Your task to perform on an android device: Search for "logitech g pro" on amazon.com, select the first entry, and add it to the cart. Image 0: 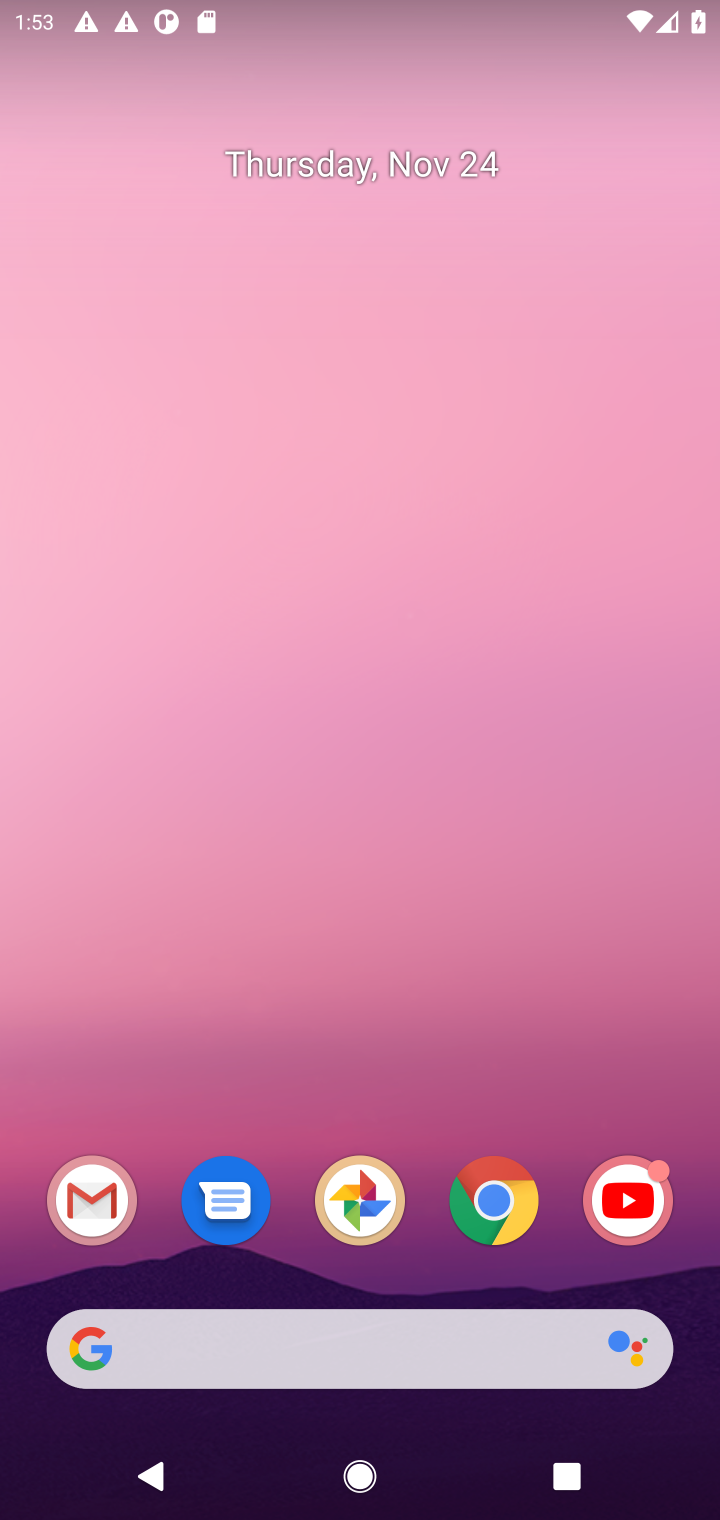
Step 0: click (507, 1330)
Your task to perform on an android device: Search for "logitech g pro" on amazon.com, select the first entry, and add it to the cart. Image 1: 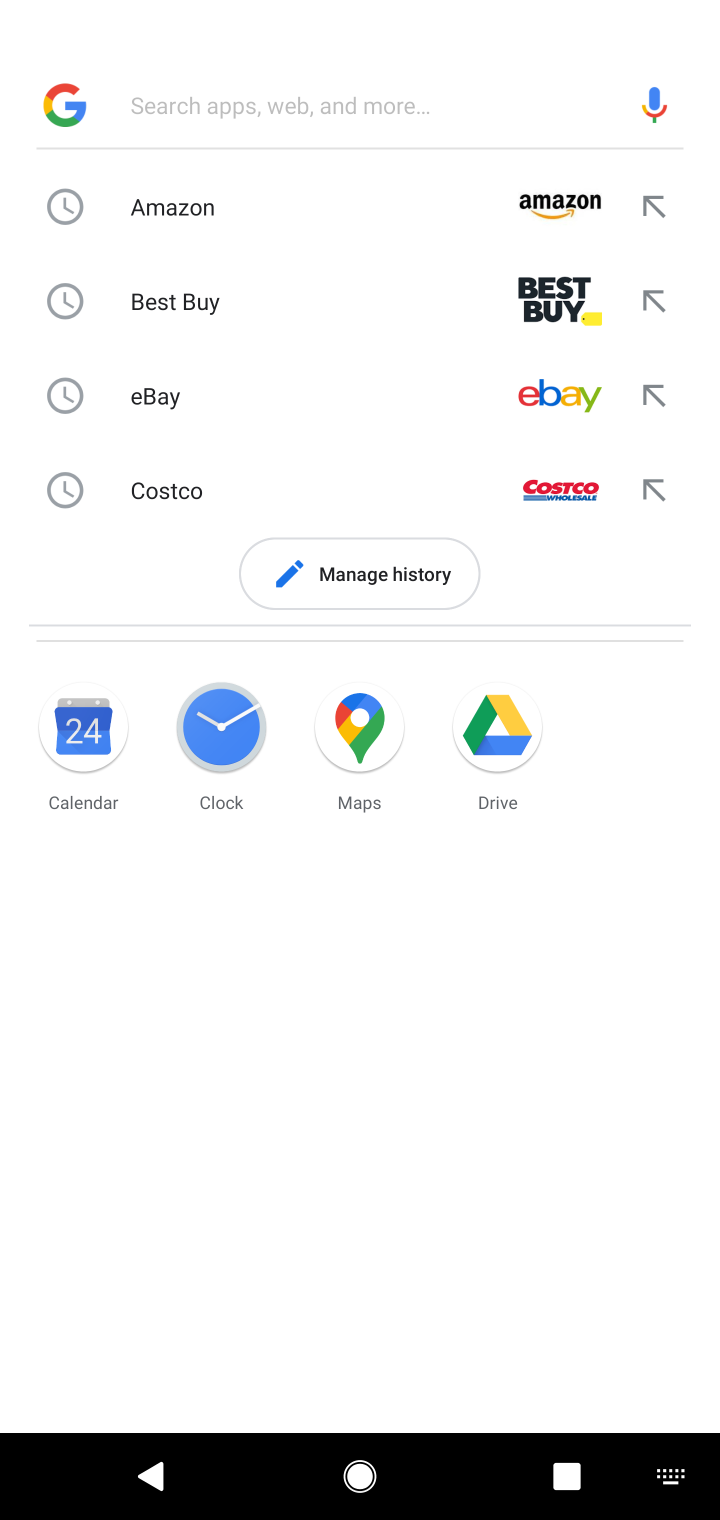
Step 1: type "a"
Your task to perform on an android device: Search for "logitech g pro" on amazon.com, select the first entry, and add it to the cart. Image 2: 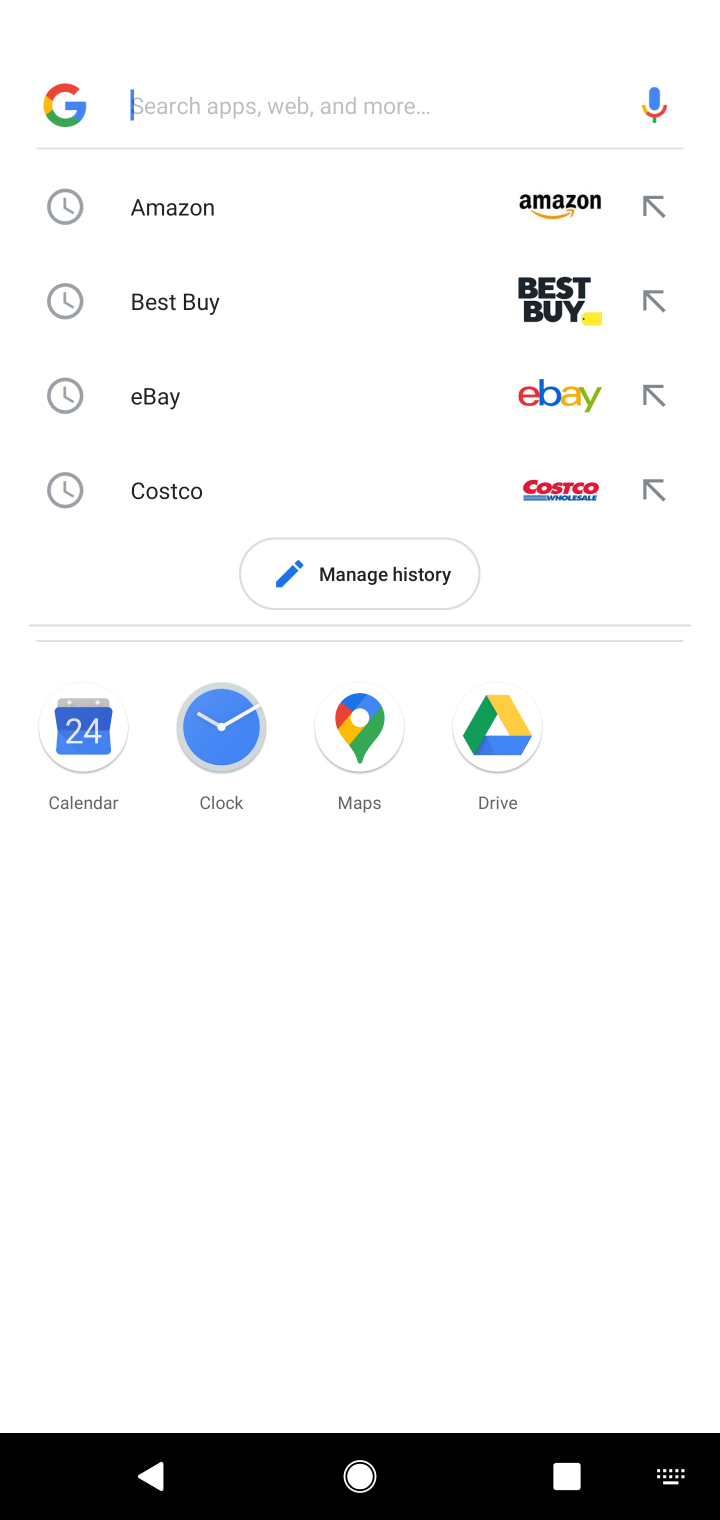
Step 2: click (197, 201)
Your task to perform on an android device: Search for "logitech g pro" on amazon.com, select the first entry, and add it to the cart. Image 3: 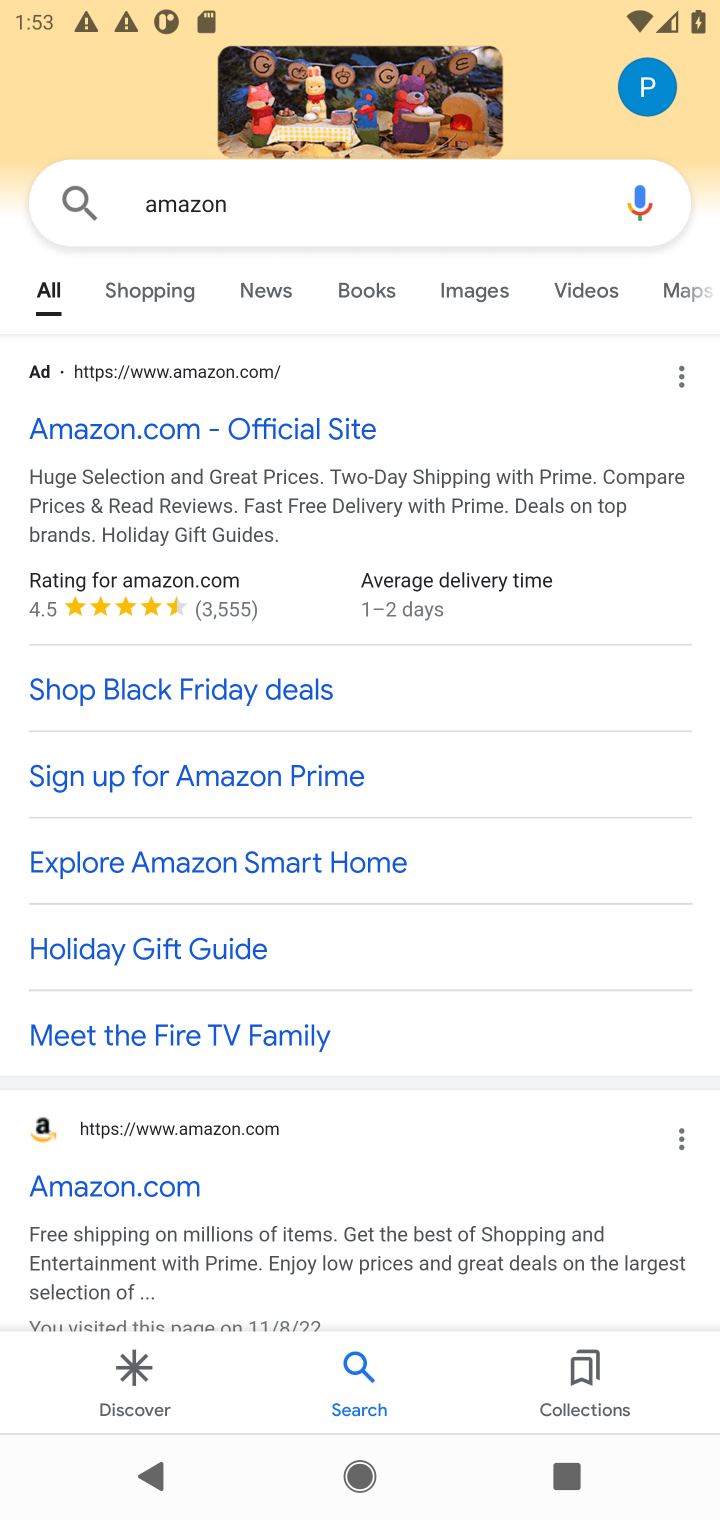
Step 3: click (257, 443)
Your task to perform on an android device: Search for "logitech g pro" on amazon.com, select the first entry, and add it to the cart. Image 4: 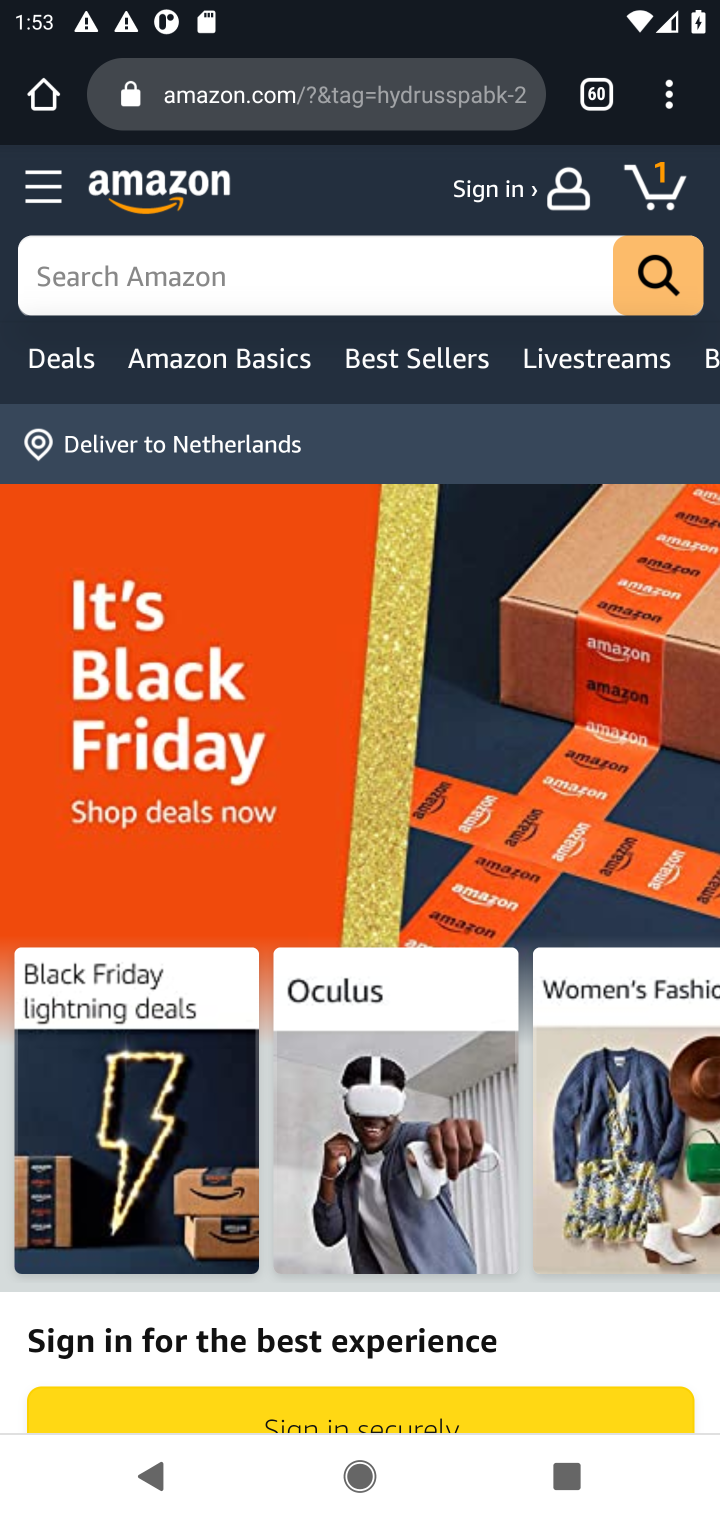
Step 4: click (280, 299)
Your task to perform on an android device: Search for "logitech g pro" on amazon.com, select the first entry, and add it to the cart. Image 5: 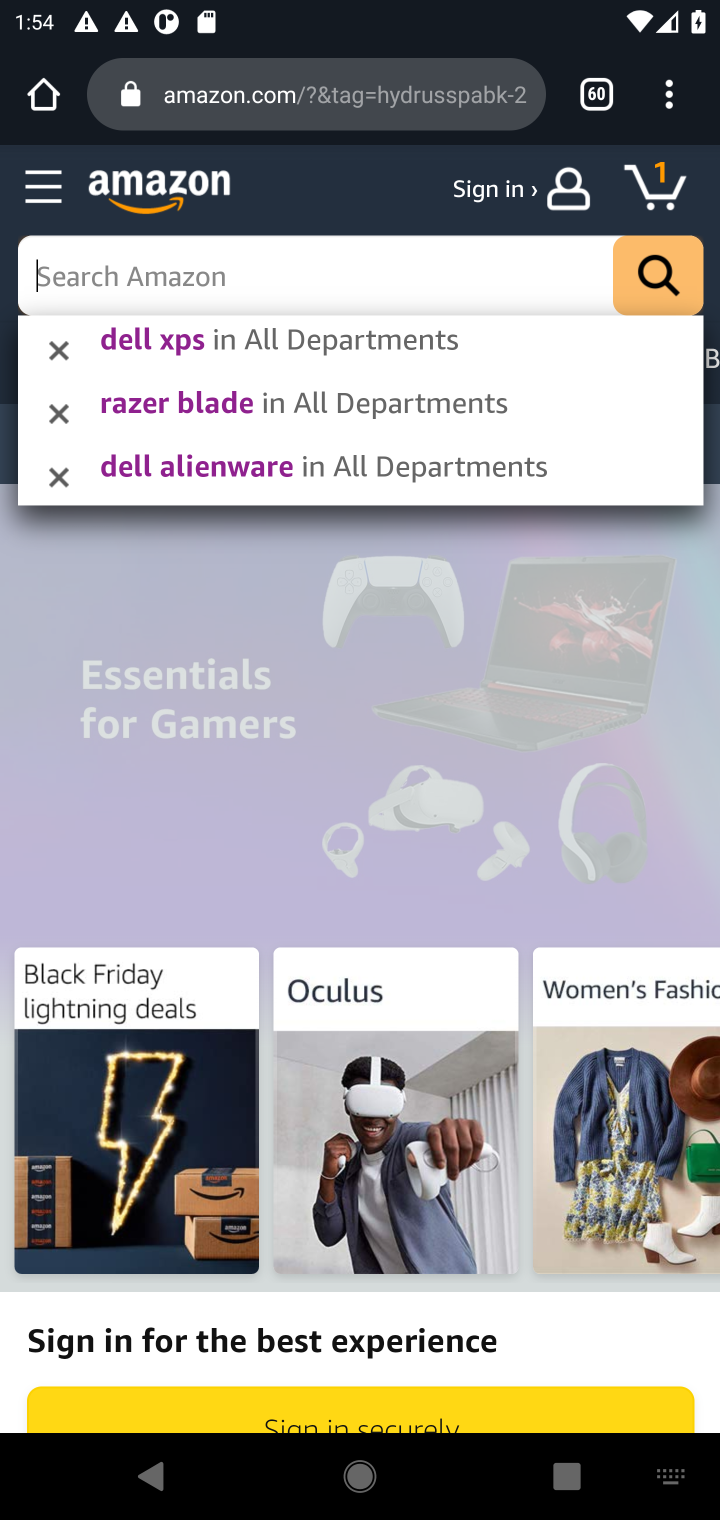
Step 5: type "logitech g pro"
Your task to perform on an android device: Search for "logitech g pro" on amazon.com, select the first entry, and add it to the cart. Image 6: 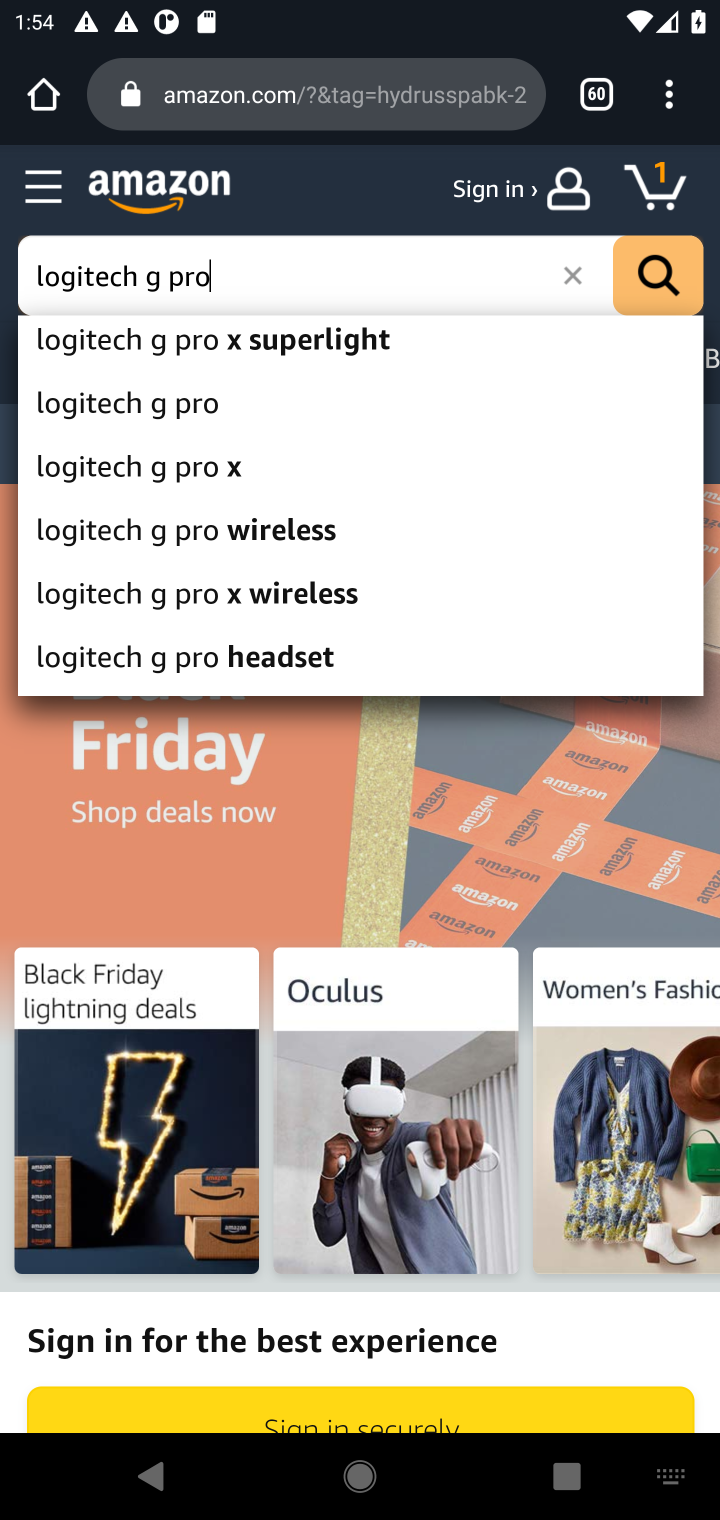
Step 6: click (208, 419)
Your task to perform on an android device: Search for "logitech g pro" on amazon.com, select the first entry, and add it to the cart. Image 7: 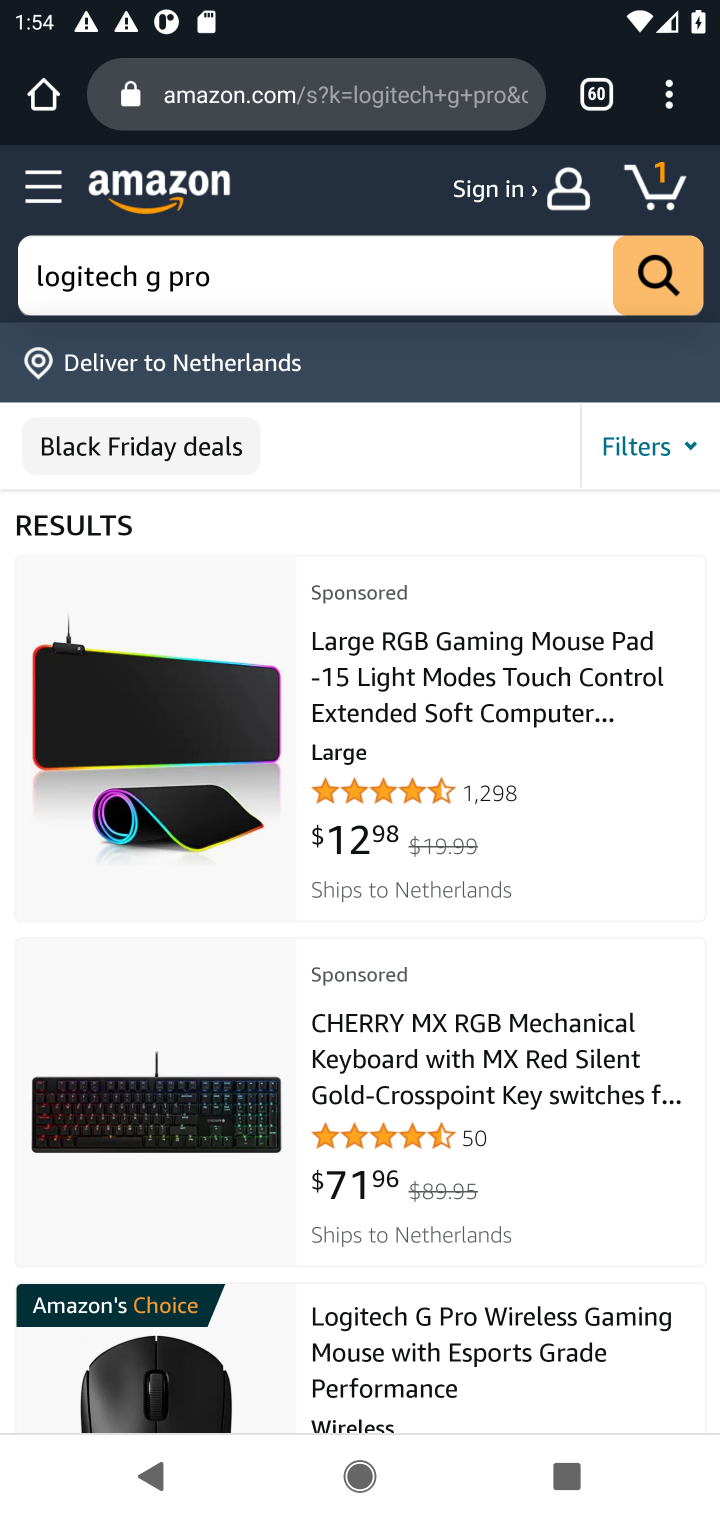
Step 7: click (308, 721)
Your task to perform on an android device: Search for "logitech g pro" on amazon.com, select the first entry, and add it to the cart. Image 8: 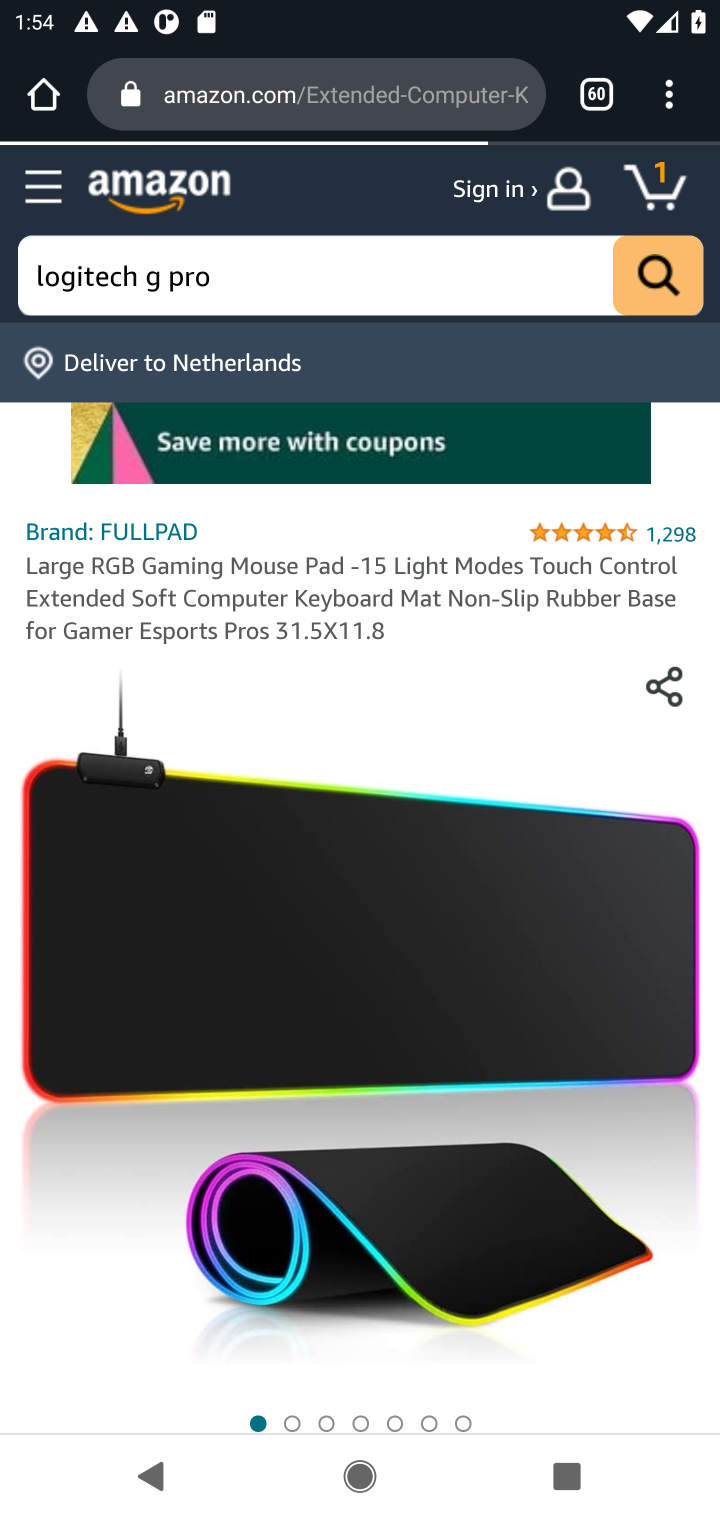
Step 8: drag from (599, 1241) to (512, 355)
Your task to perform on an android device: Search for "logitech g pro" on amazon.com, select the first entry, and add it to the cart. Image 9: 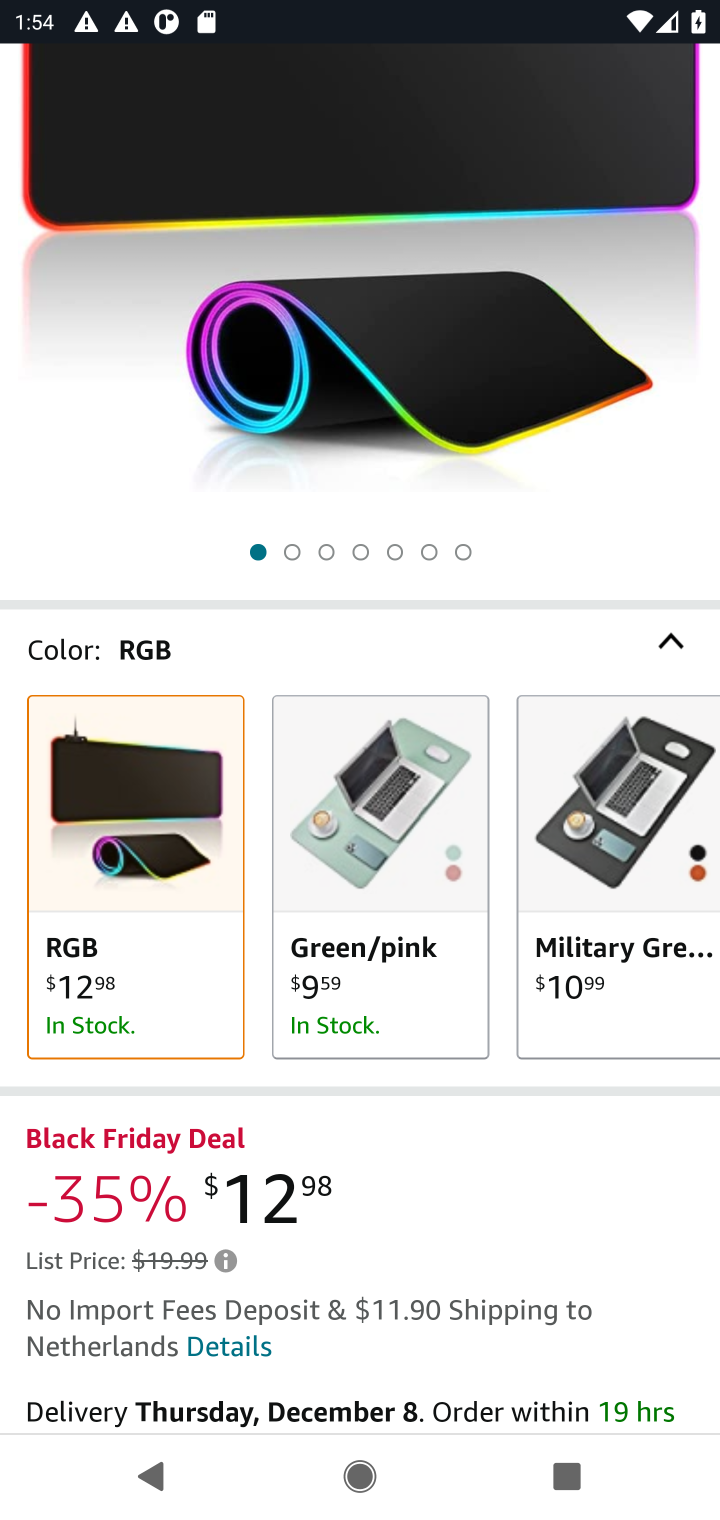
Step 9: drag from (517, 1279) to (542, 458)
Your task to perform on an android device: Search for "logitech g pro" on amazon.com, select the first entry, and add it to the cart. Image 10: 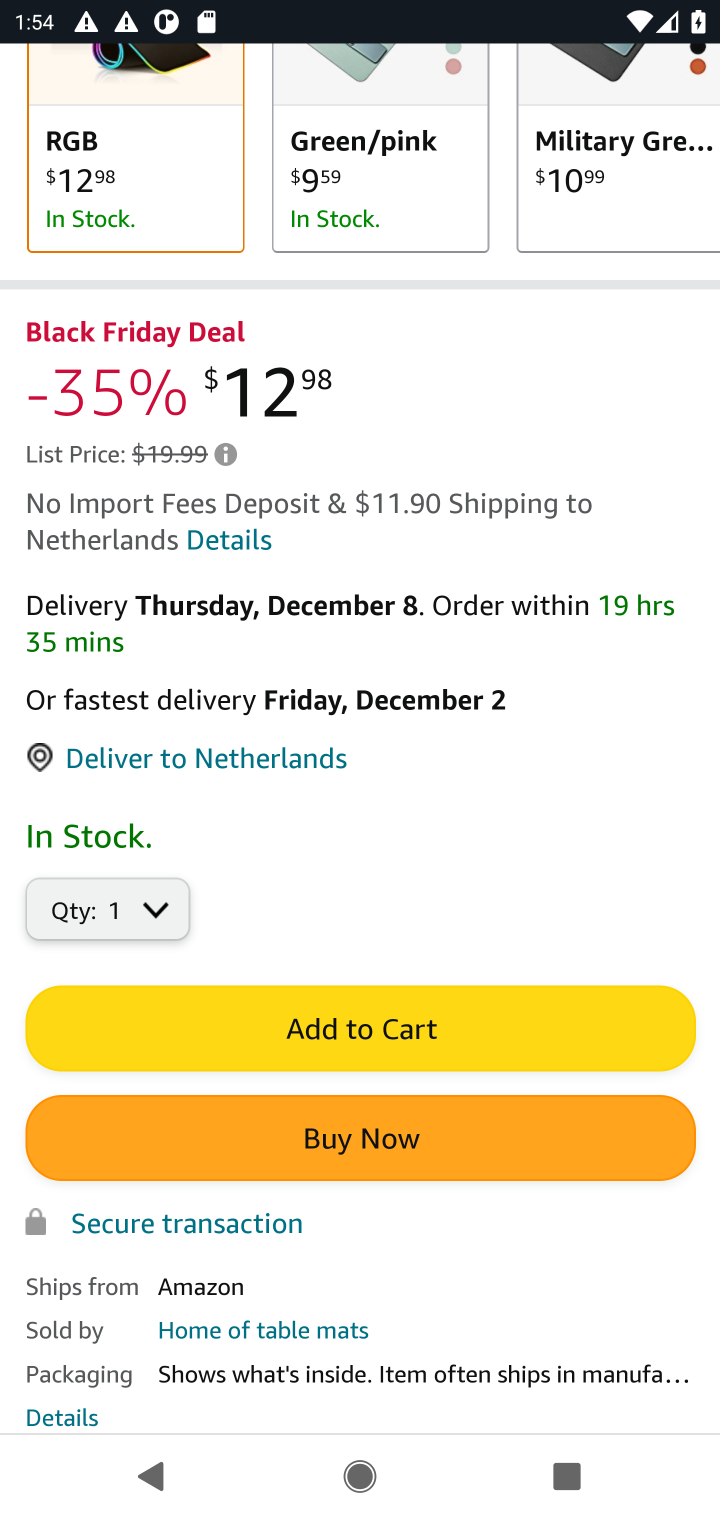
Step 10: click (440, 1066)
Your task to perform on an android device: Search for "logitech g pro" on amazon.com, select the first entry, and add it to the cart. Image 11: 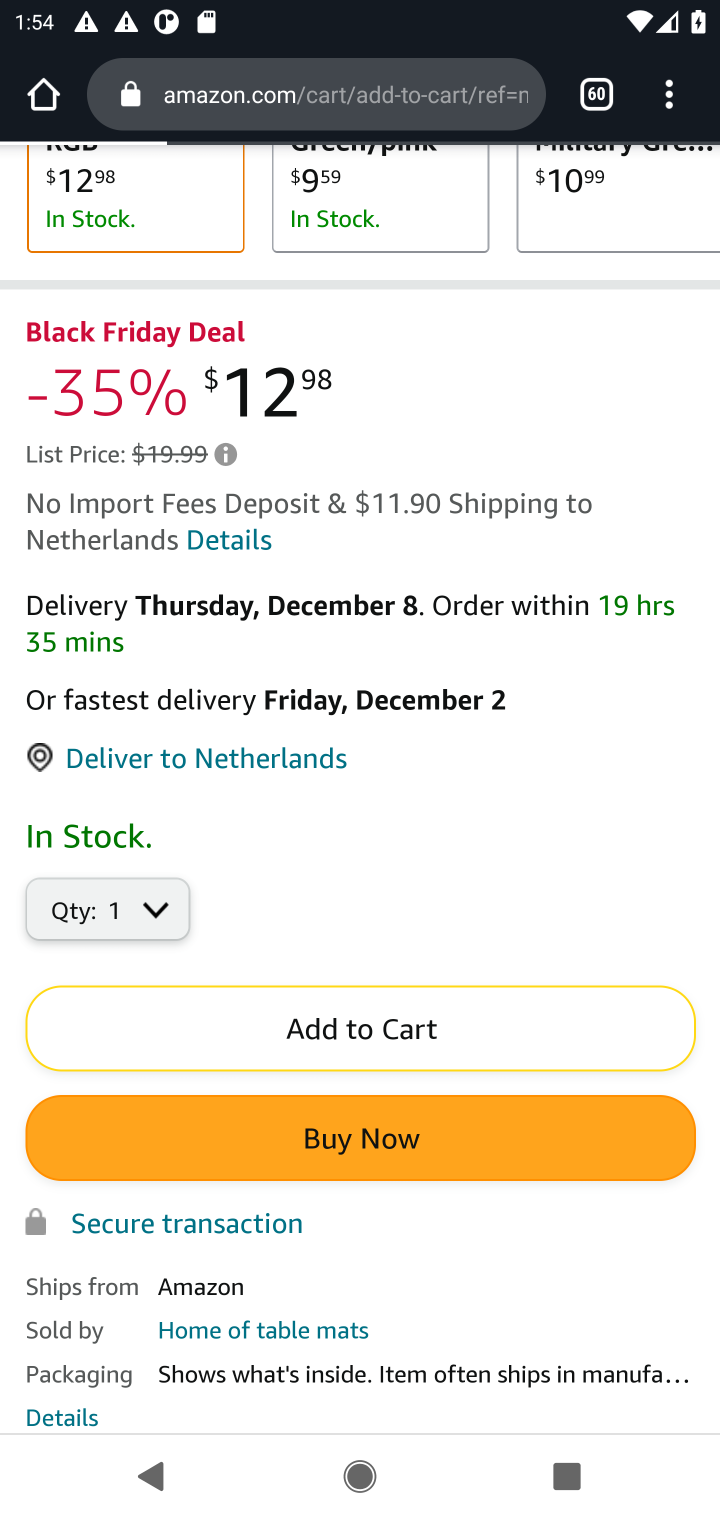
Step 11: task complete